Your task to perform on an android device: turn off wifi Image 0: 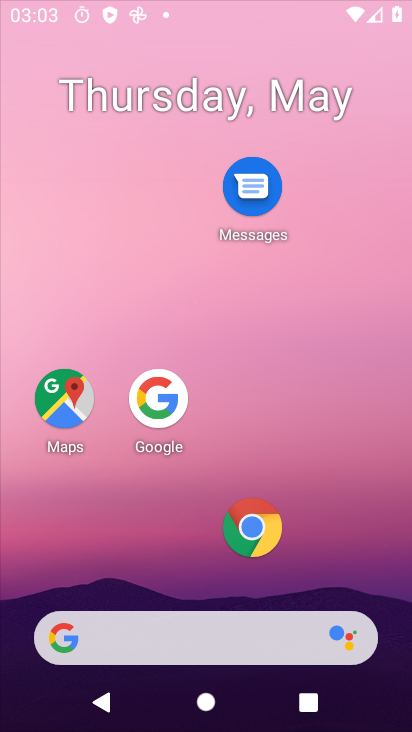
Step 0: click (210, 85)
Your task to perform on an android device: turn off wifi Image 1: 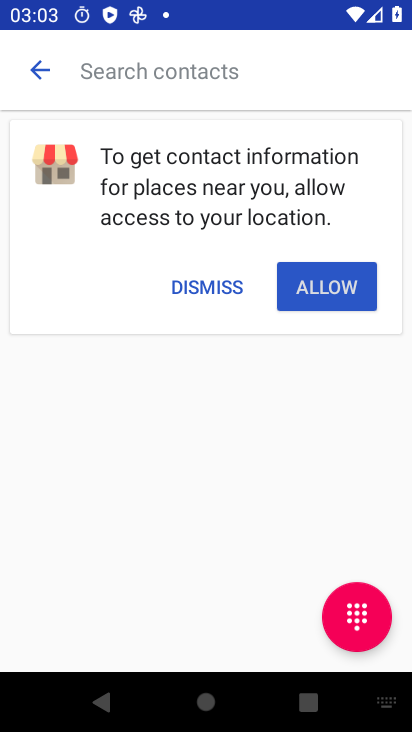
Step 1: press home button
Your task to perform on an android device: turn off wifi Image 2: 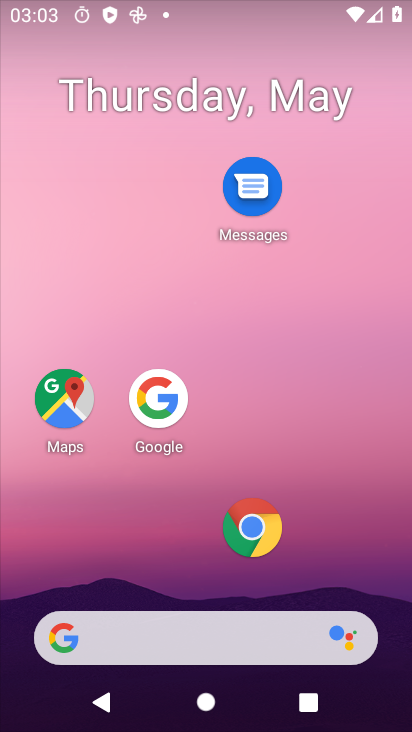
Step 2: drag from (220, 595) to (270, 95)
Your task to perform on an android device: turn off wifi Image 3: 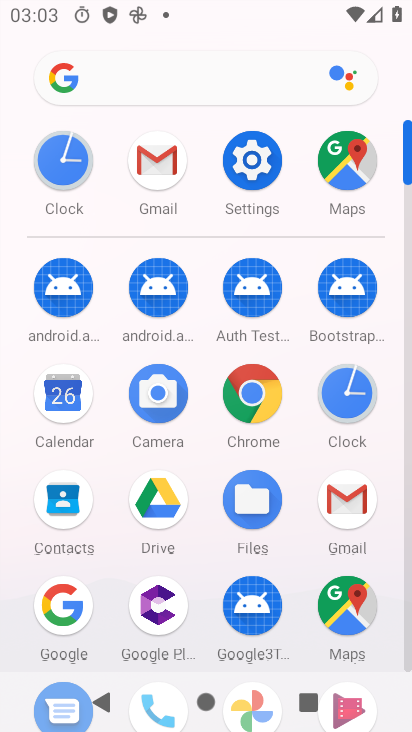
Step 3: click (243, 167)
Your task to perform on an android device: turn off wifi Image 4: 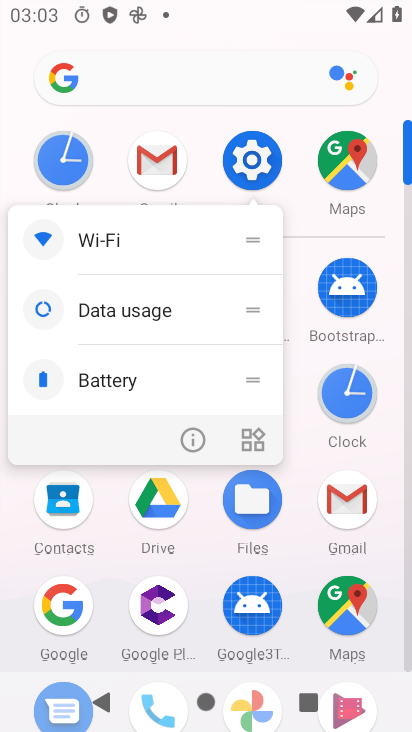
Step 4: click (112, 246)
Your task to perform on an android device: turn off wifi Image 5: 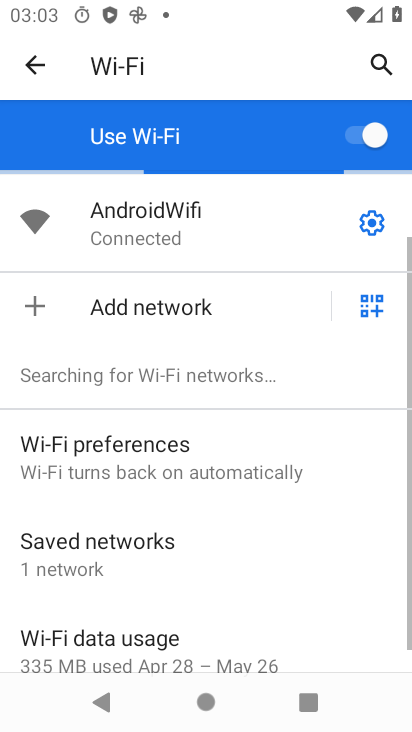
Step 5: click (358, 145)
Your task to perform on an android device: turn off wifi Image 6: 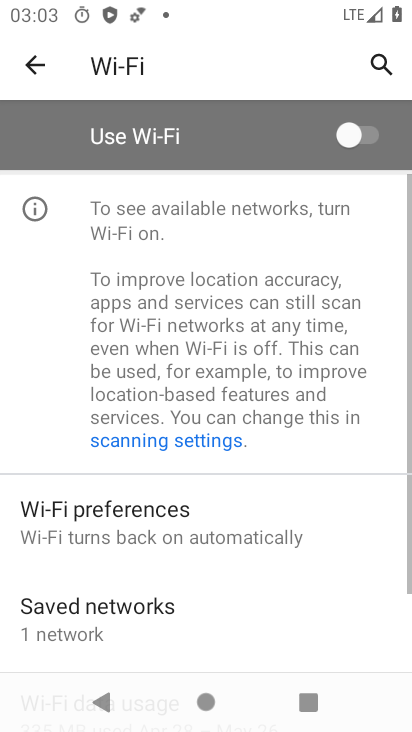
Step 6: task complete